Your task to perform on an android device: Add "rayovac triple a" to the cart on amazon.com, then select checkout. Image 0: 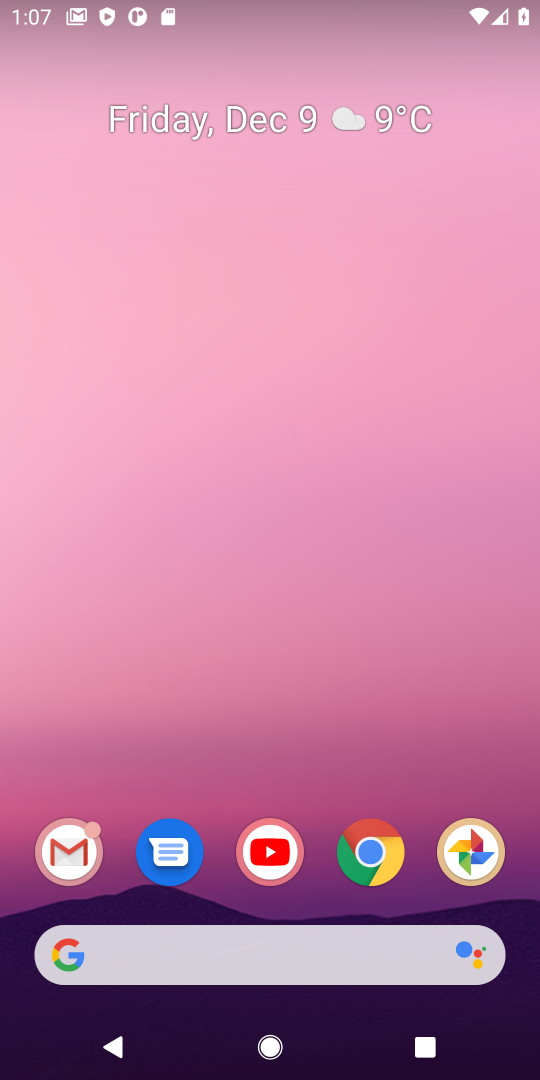
Step 0: click (368, 862)
Your task to perform on an android device: Add "rayovac triple a" to the cart on amazon.com, then select checkout. Image 1: 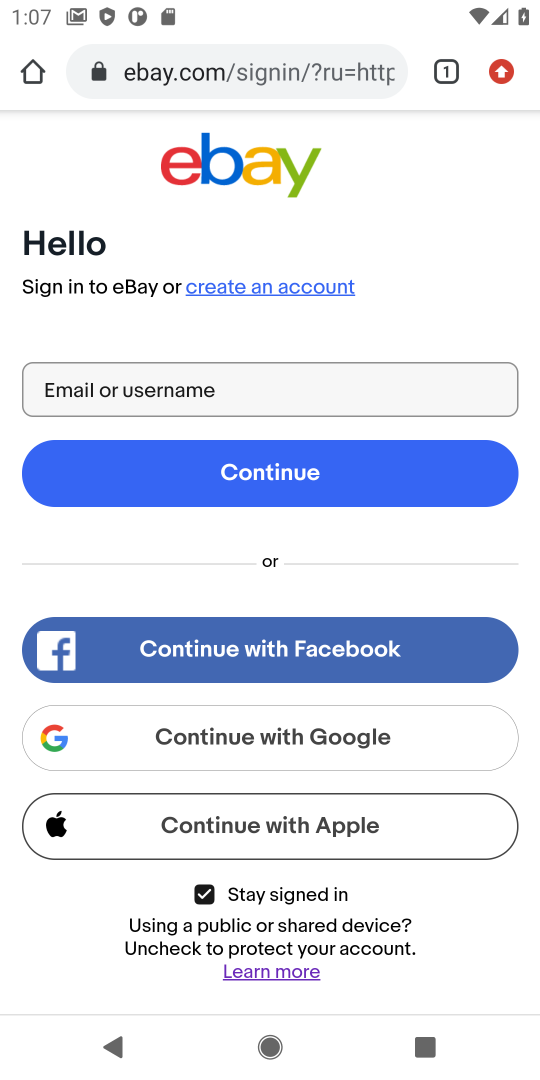
Step 1: click (219, 76)
Your task to perform on an android device: Add "rayovac triple a" to the cart on amazon.com, then select checkout. Image 2: 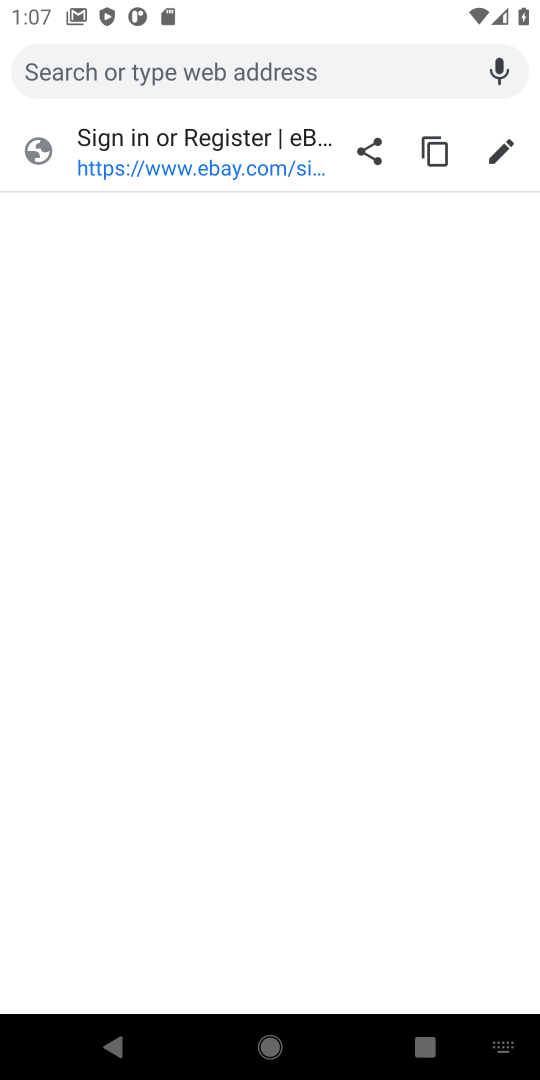
Step 2: type "amazon.com"
Your task to perform on an android device: Add "rayovac triple a" to the cart on amazon.com, then select checkout. Image 3: 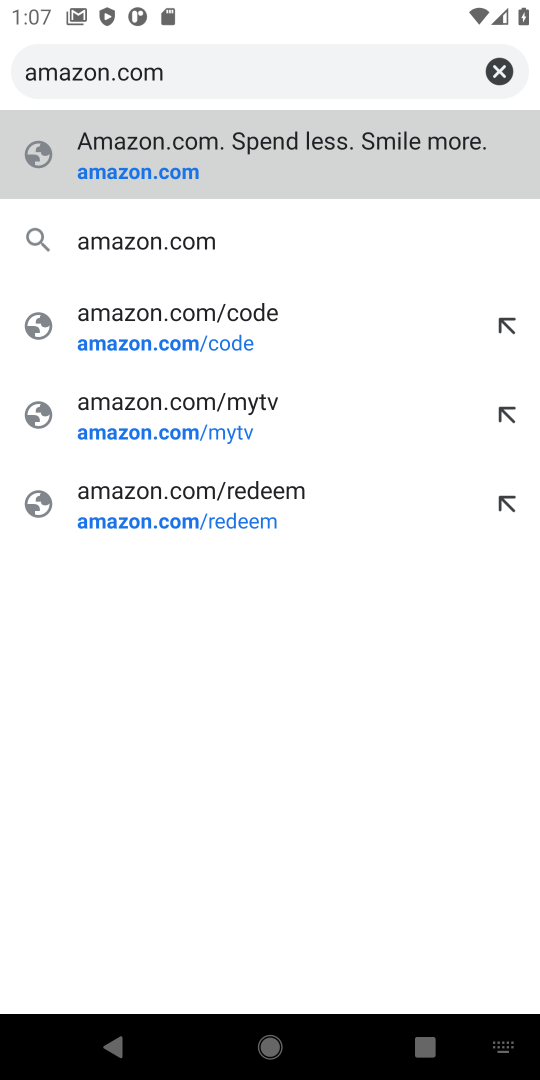
Step 3: press enter
Your task to perform on an android device: Add "rayovac triple a" to the cart on amazon.com, then select checkout. Image 4: 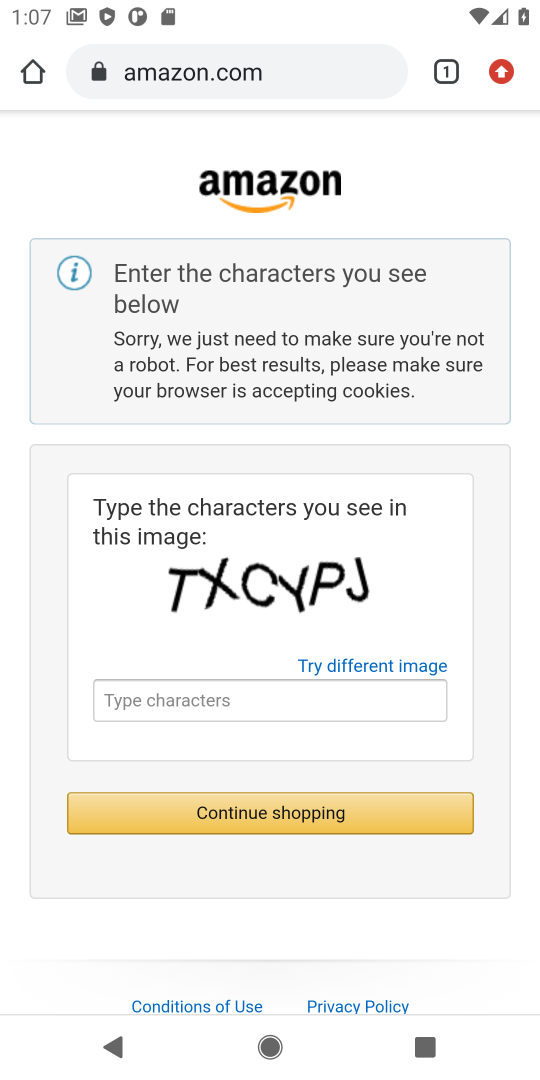
Step 4: click (229, 697)
Your task to perform on an android device: Add "rayovac triple a" to the cart on amazon.com, then select checkout. Image 5: 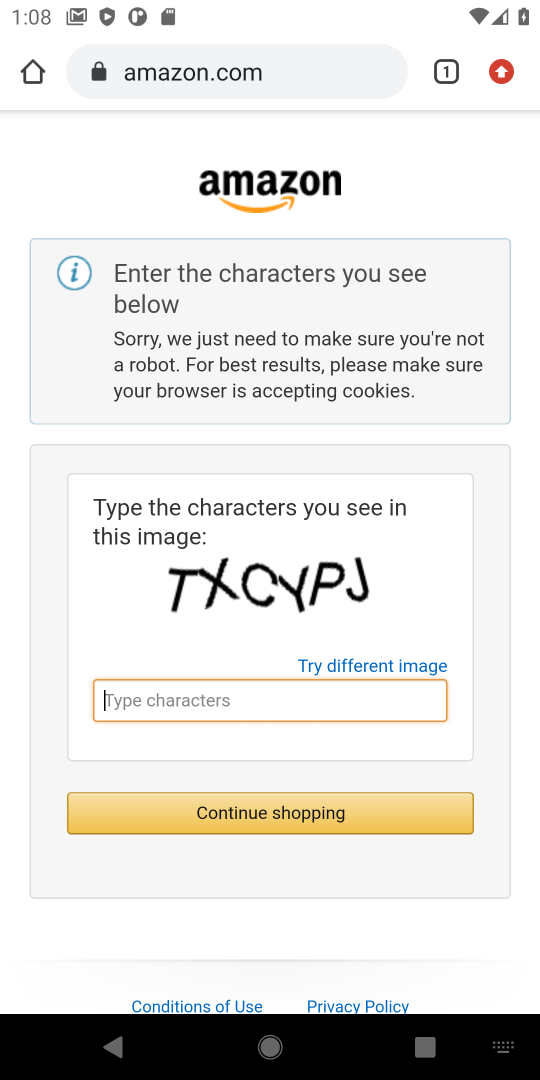
Step 5: type "TXCYPJ"
Your task to perform on an android device: Add "rayovac triple a" to the cart on amazon.com, then select checkout. Image 6: 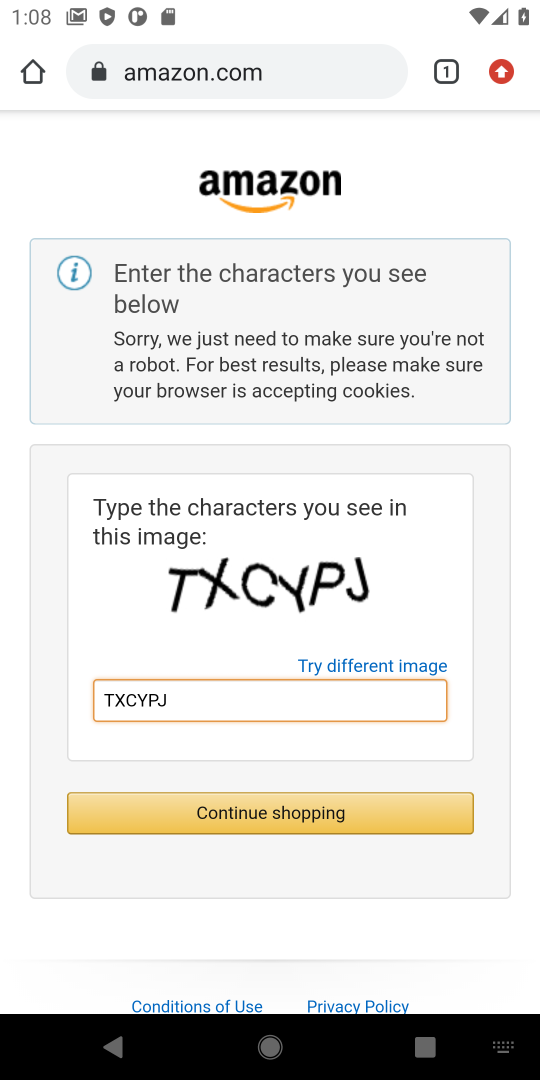
Step 6: click (289, 815)
Your task to perform on an android device: Add "rayovac triple a" to the cart on amazon.com, then select checkout. Image 7: 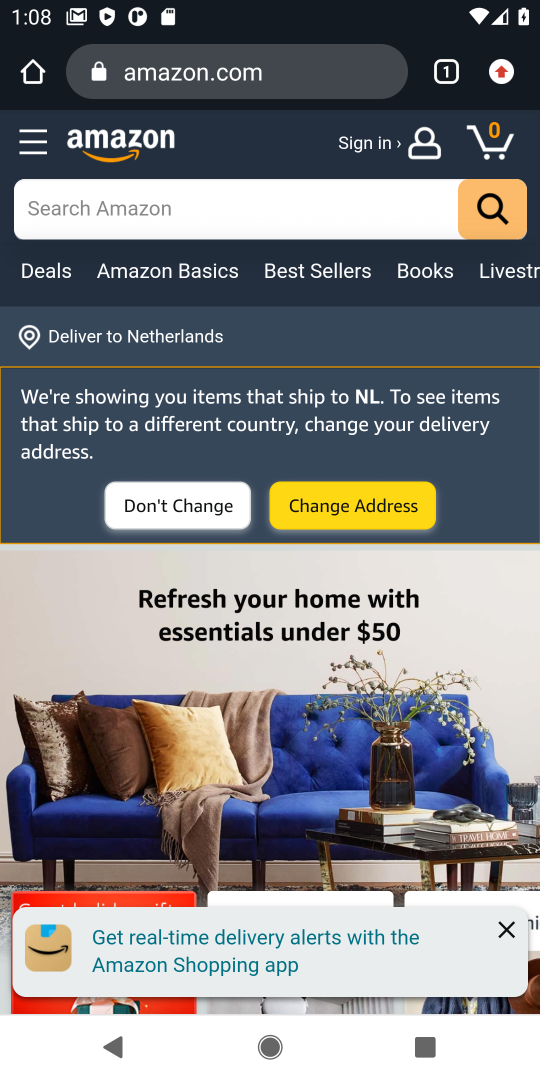
Step 7: click (169, 211)
Your task to perform on an android device: Add "rayovac triple a" to the cart on amazon.com, then select checkout. Image 8: 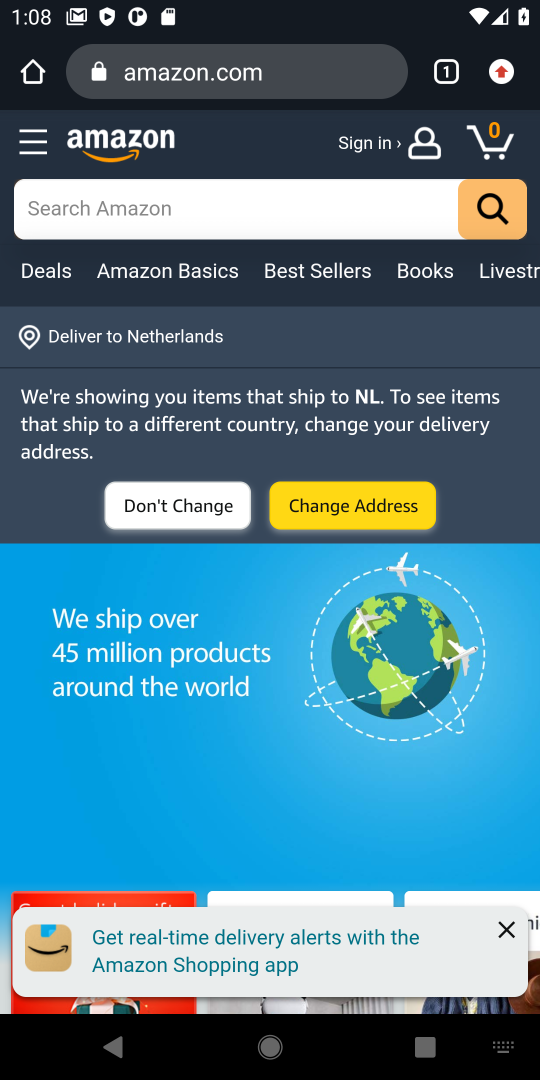
Step 8: type "rayovac triple a"
Your task to perform on an android device: Add "rayovac triple a" to the cart on amazon.com, then select checkout. Image 9: 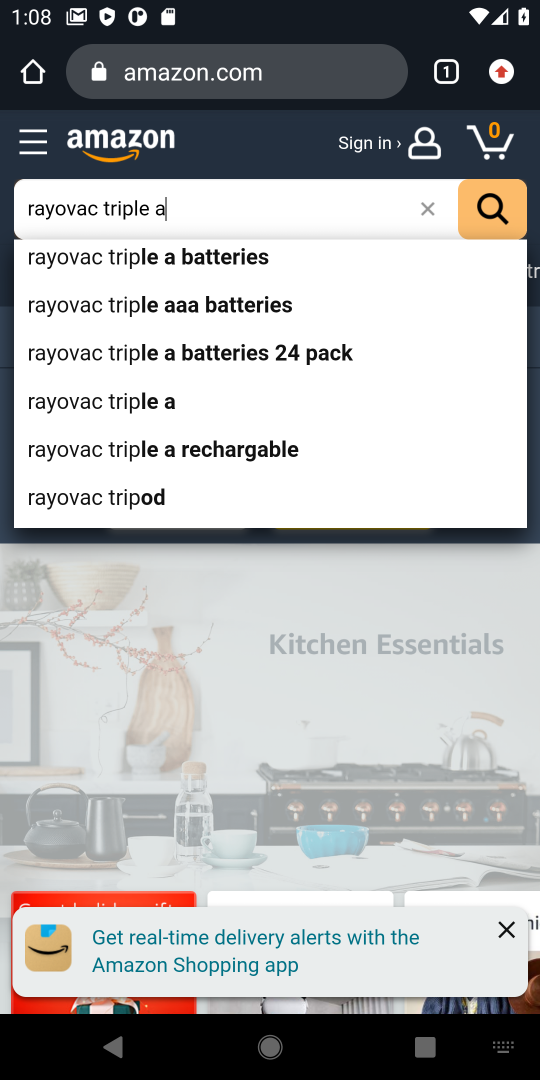
Step 9: press enter
Your task to perform on an android device: Add "rayovac triple a" to the cart on amazon.com, then select checkout. Image 10: 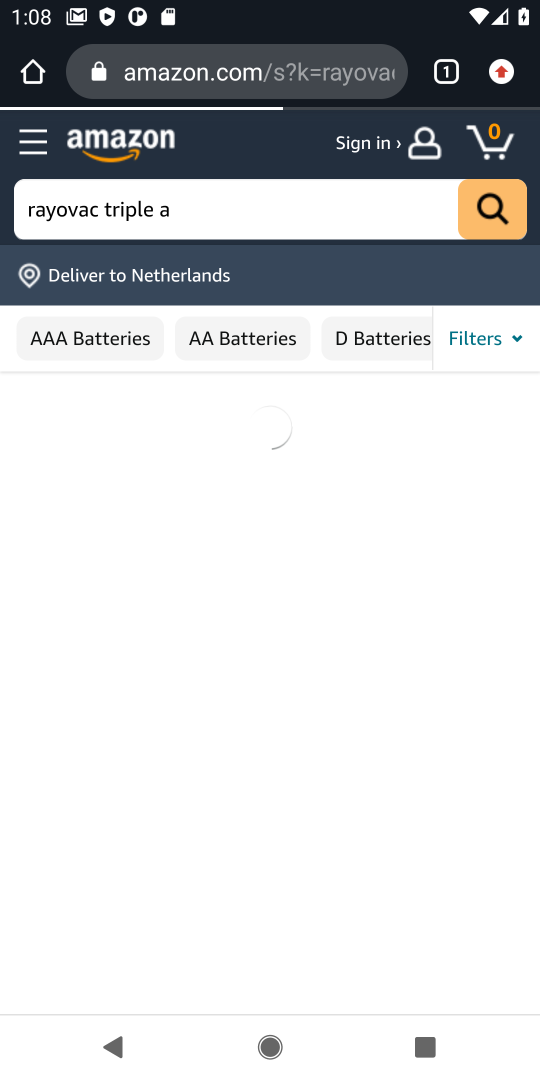
Step 10: click (491, 212)
Your task to perform on an android device: Add "rayovac triple a" to the cart on amazon.com, then select checkout. Image 11: 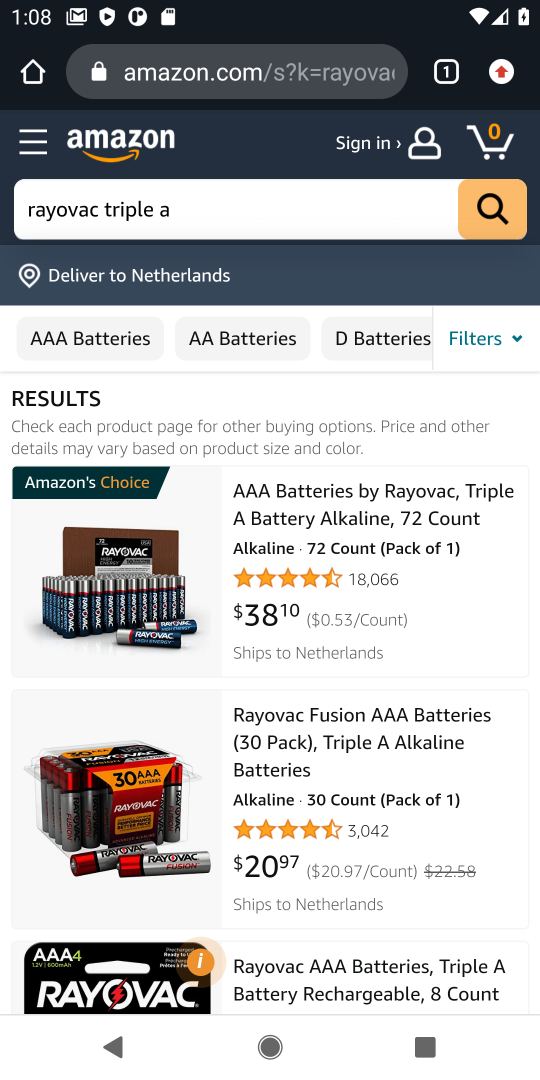
Step 11: click (311, 536)
Your task to perform on an android device: Add "rayovac triple a" to the cart on amazon.com, then select checkout. Image 12: 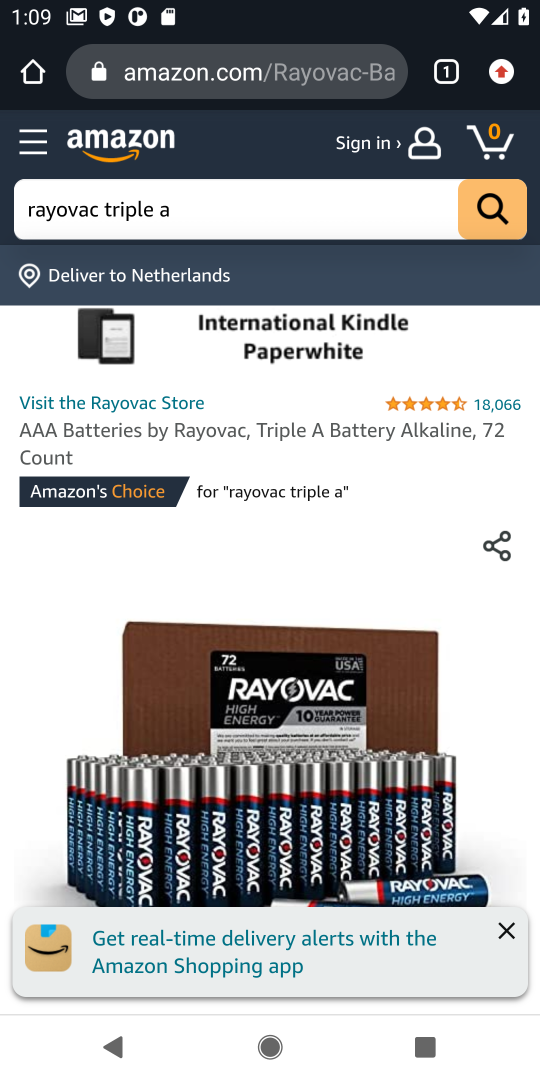
Step 12: drag from (240, 747) to (259, 431)
Your task to perform on an android device: Add "rayovac triple a" to the cart on amazon.com, then select checkout. Image 13: 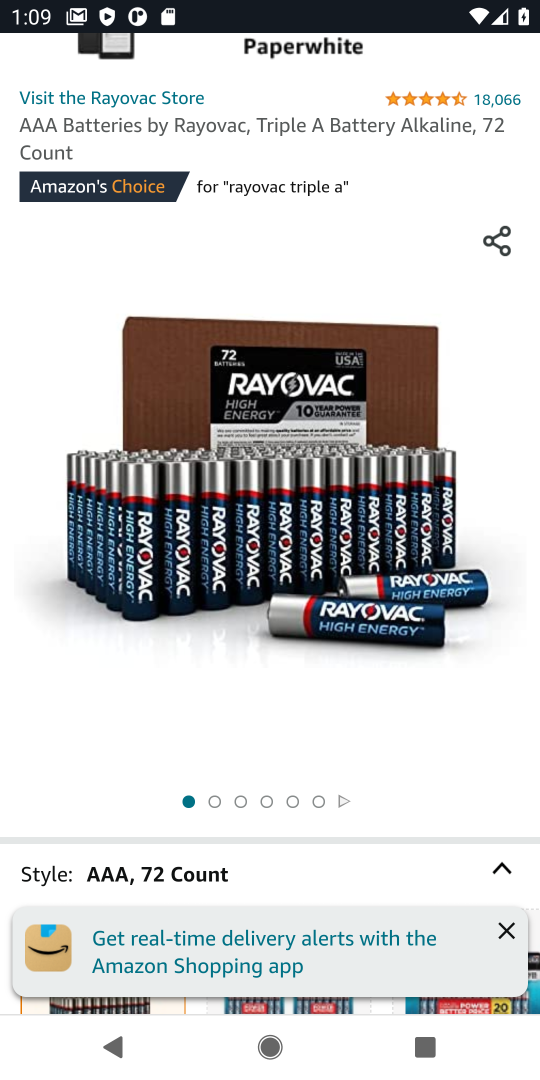
Step 13: drag from (196, 923) to (183, 621)
Your task to perform on an android device: Add "rayovac triple a" to the cart on amazon.com, then select checkout. Image 14: 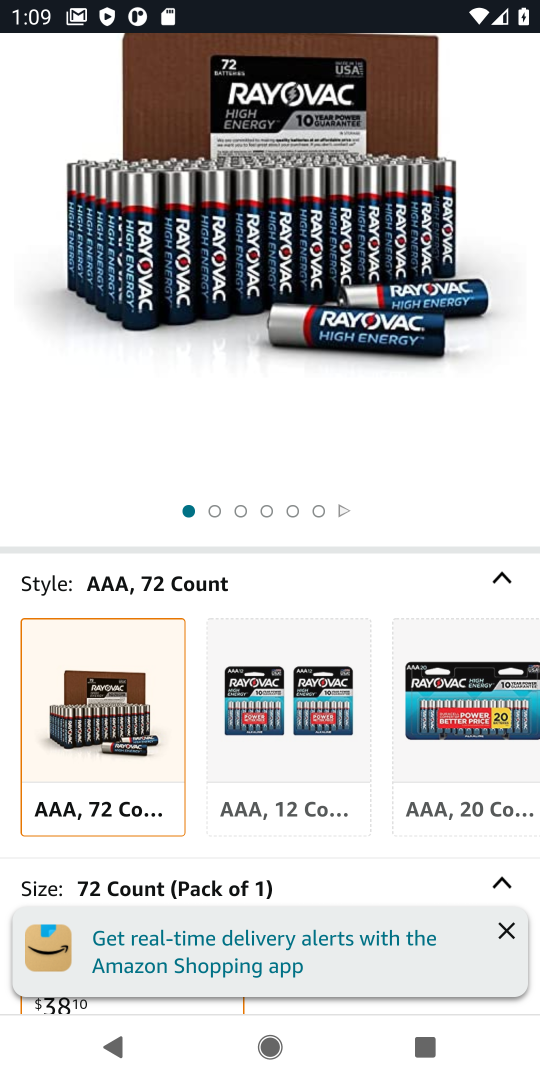
Step 14: drag from (298, 868) to (320, 540)
Your task to perform on an android device: Add "rayovac triple a" to the cart on amazon.com, then select checkout. Image 15: 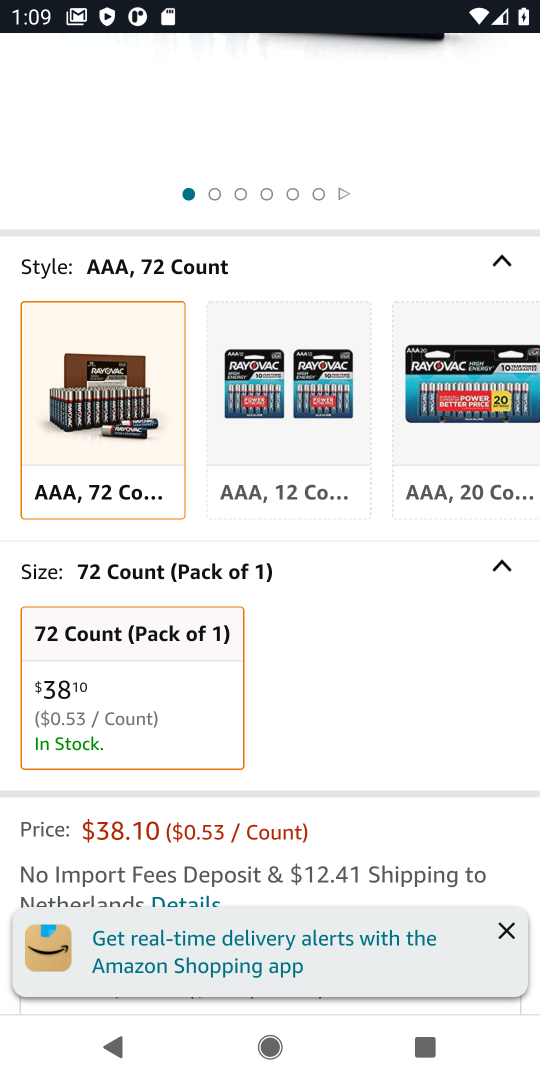
Step 15: drag from (320, 568) to (319, 396)
Your task to perform on an android device: Add "rayovac triple a" to the cart on amazon.com, then select checkout. Image 16: 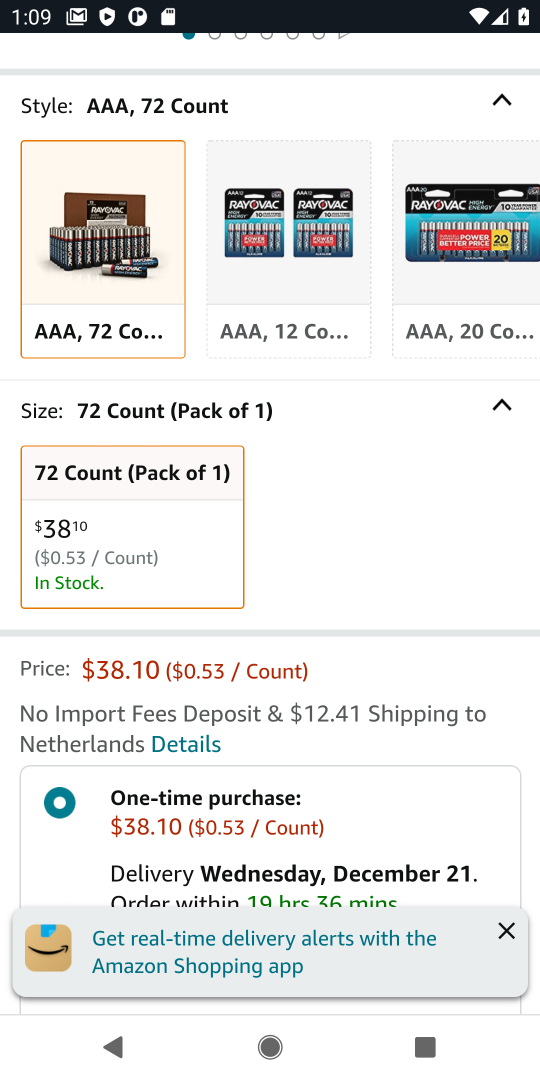
Step 16: drag from (342, 669) to (349, 307)
Your task to perform on an android device: Add "rayovac triple a" to the cart on amazon.com, then select checkout. Image 17: 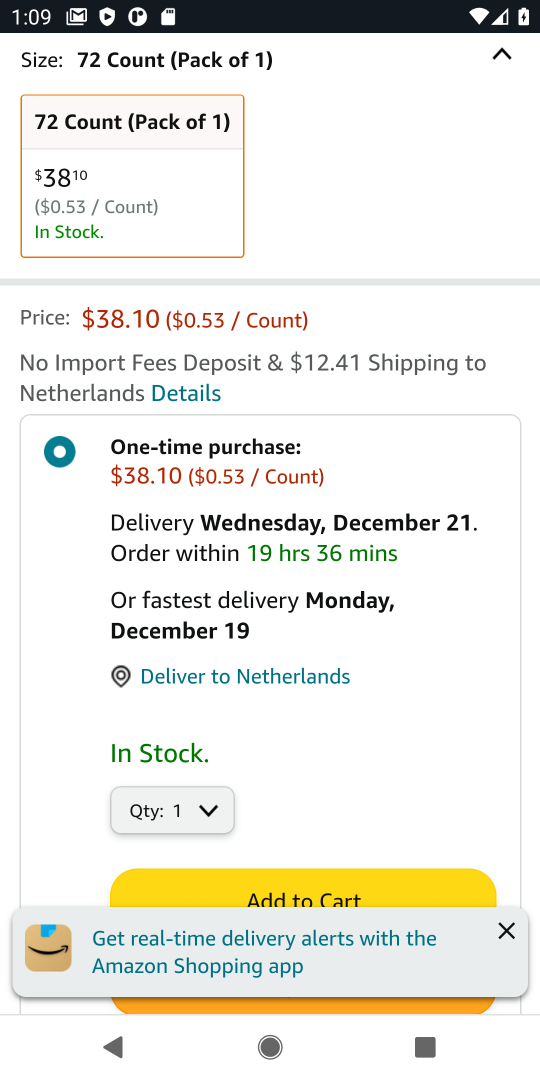
Step 17: click (292, 895)
Your task to perform on an android device: Add "rayovac triple a" to the cart on amazon.com, then select checkout. Image 18: 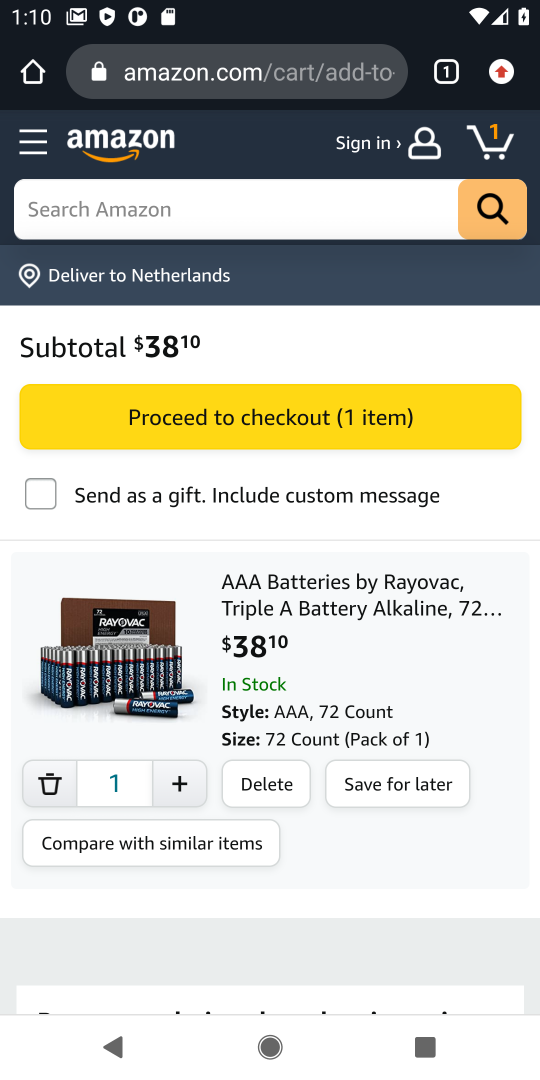
Step 18: click (229, 415)
Your task to perform on an android device: Add "rayovac triple a" to the cart on amazon.com, then select checkout. Image 19: 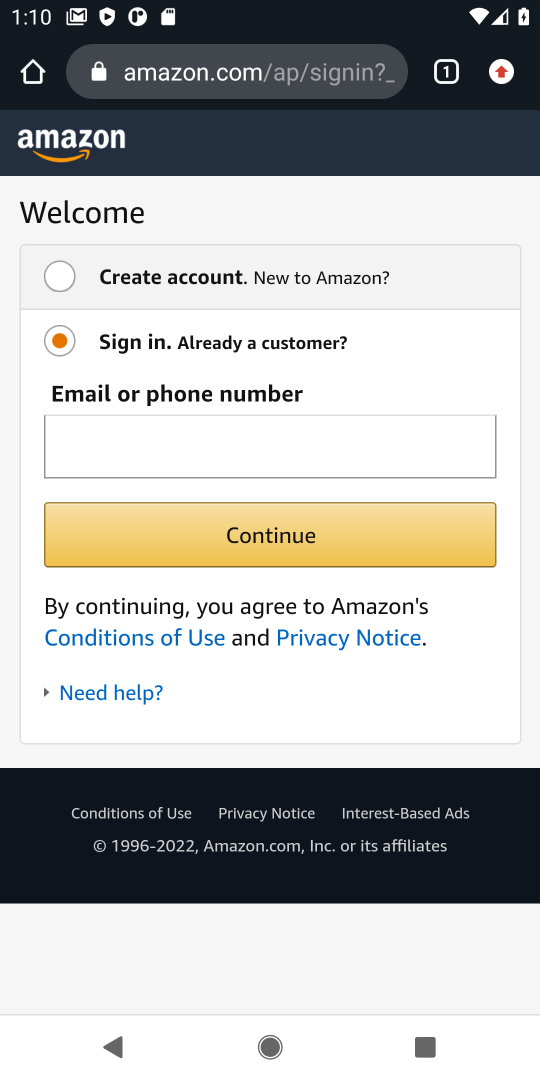
Step 19: task complete